Your task to perform on an android device: Open Google Image 0: 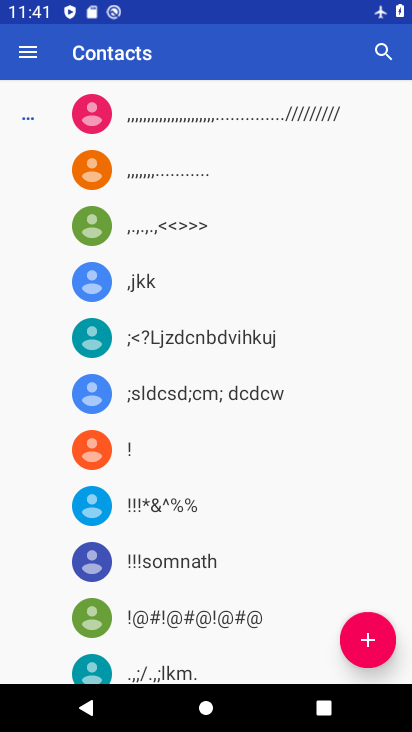
Step 0: press home button
Your task to perform on an android device: Open Google Image 1: 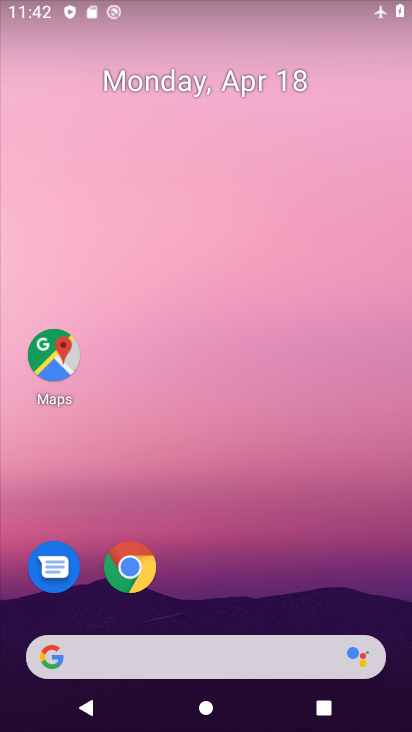
Step 1: click (131, 567)
Your task to perform on an android device: Open Google Image 2: 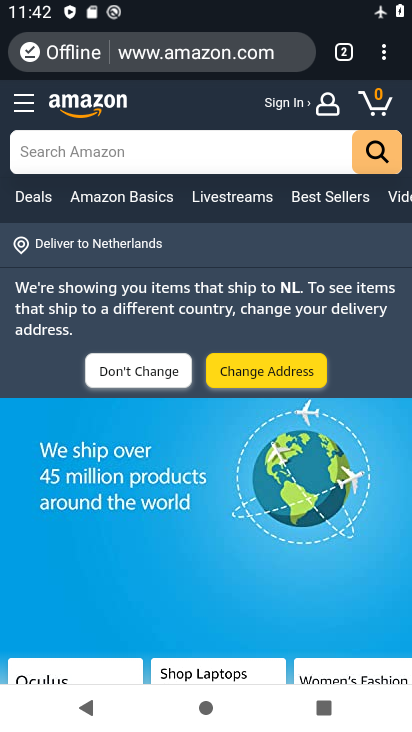
Step 2: task complete